Your task to perform on an android device: Open accessibility settings Image 0: 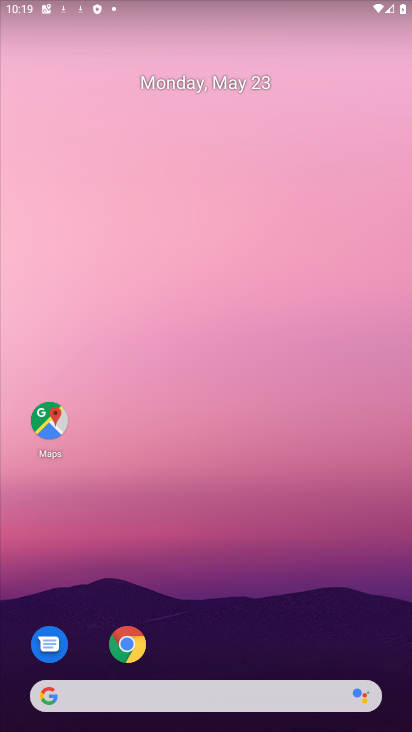
Step 0: drag from (250, 724) to (261, 0)
Your task to perform on an android device: Open accessibility settings Image 1: 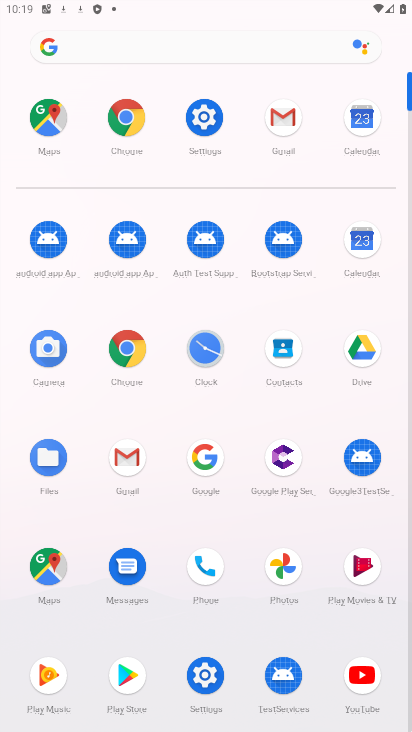
Step 1: click (211, 119)
Your task to perform on an android device: Open accessibility settings Image 2: 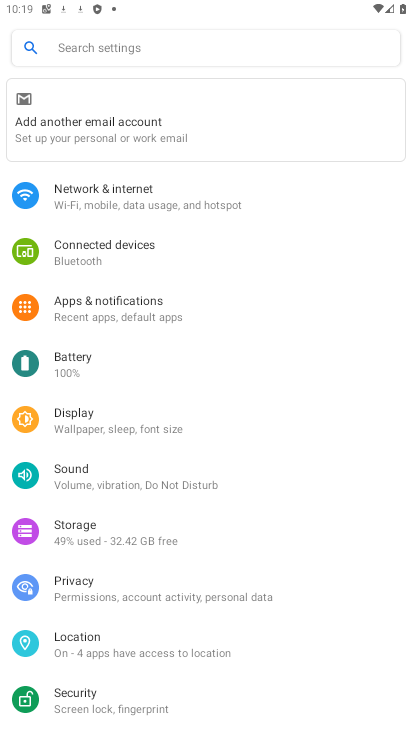
Step 2: click (145, 50)
Your task to perform on an android device: Open accessibility settings Image 3: 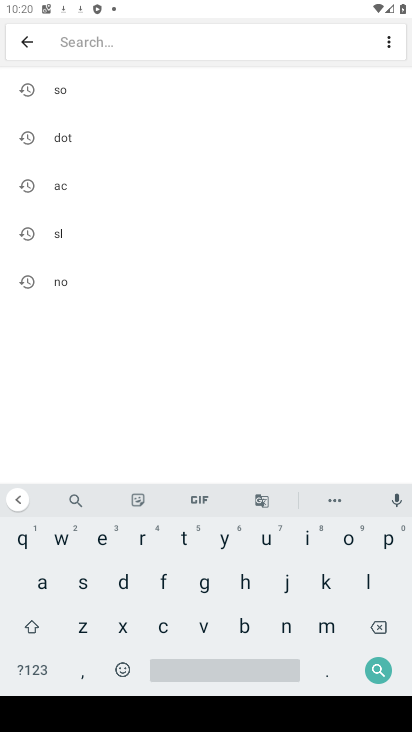
Step 3: click (39, 579)
Your task to perform on an android device: Open accessibility settings Image 4: 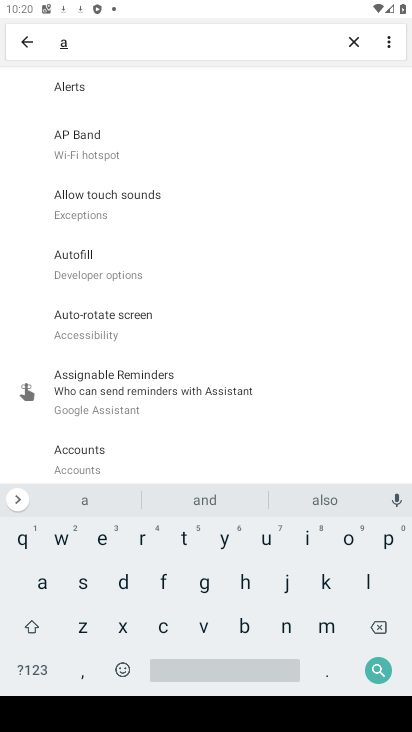
Step 4: click (154, 629)
Your task to perform on an android device: Open accessibility settings Image 5: 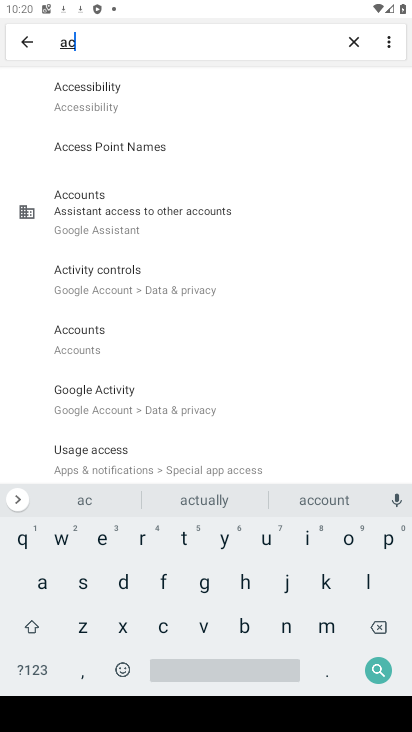
Step 5: click (124, 113)
Your task to perform on an android device: Open accessibility settings Image 6: 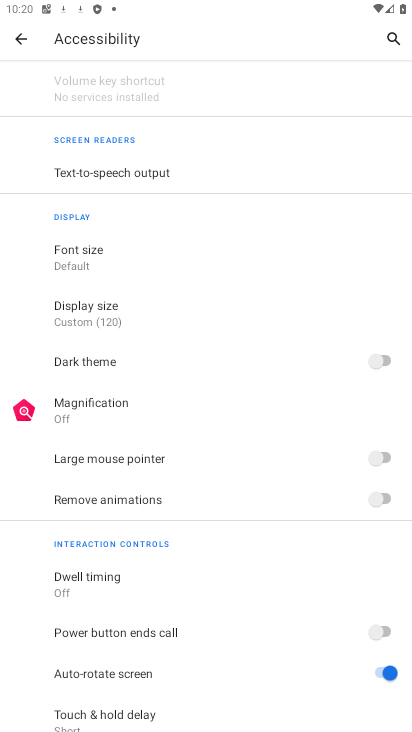
Step 6: task complete